Your task to perform on an android device: open app "Google Maps" Image 0: 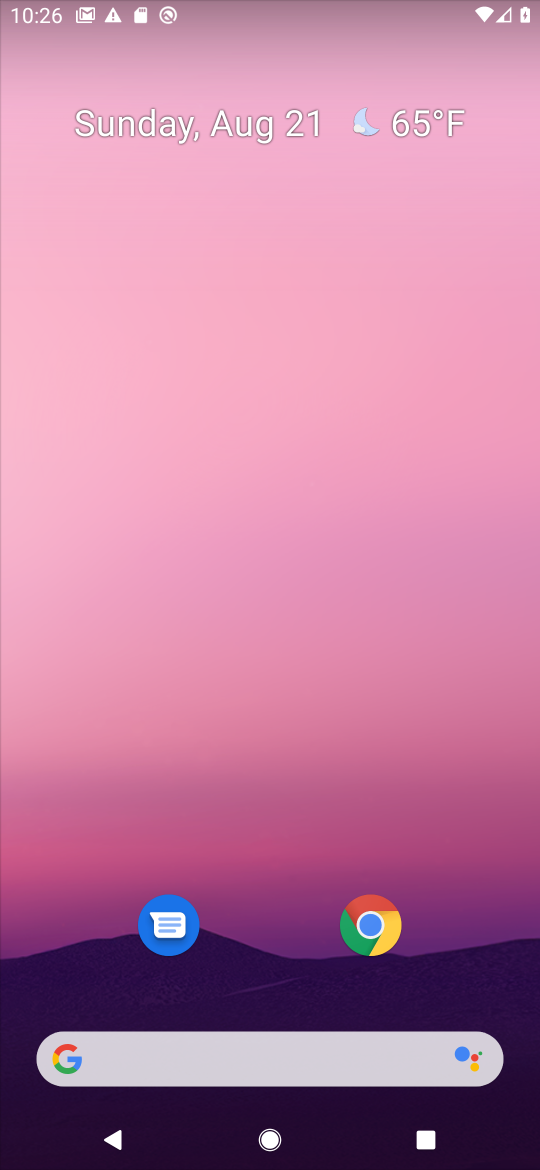
Step 0: drag from (249, 978) to (335, 173)
Your task to perform on an android device: open app "Google Maps" Image 1: 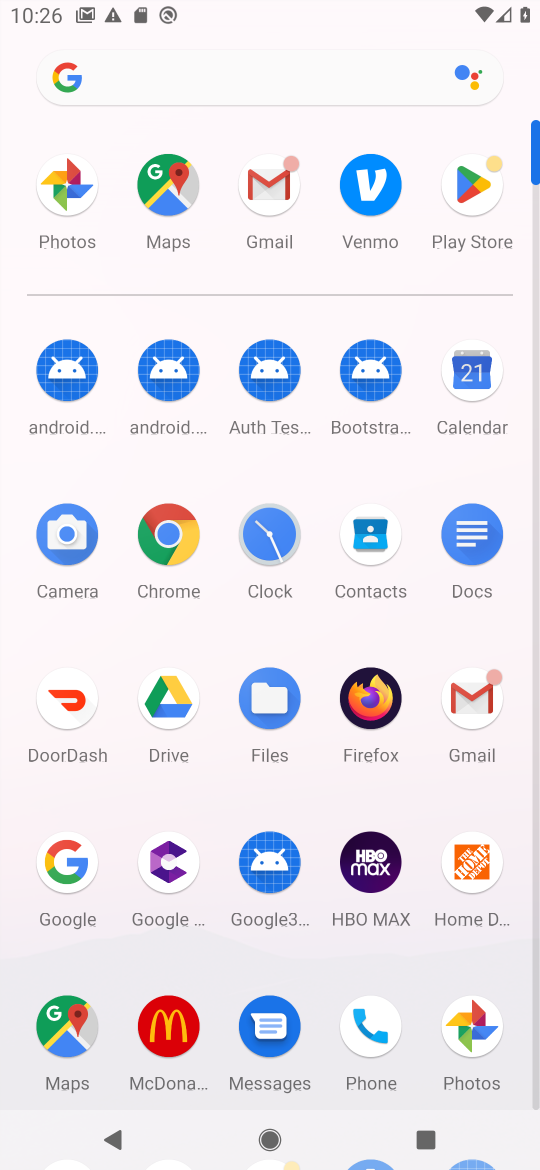
Step 1: click (138, 194)
Your task to perform on an android device: open app "Google Maps" Image 2: 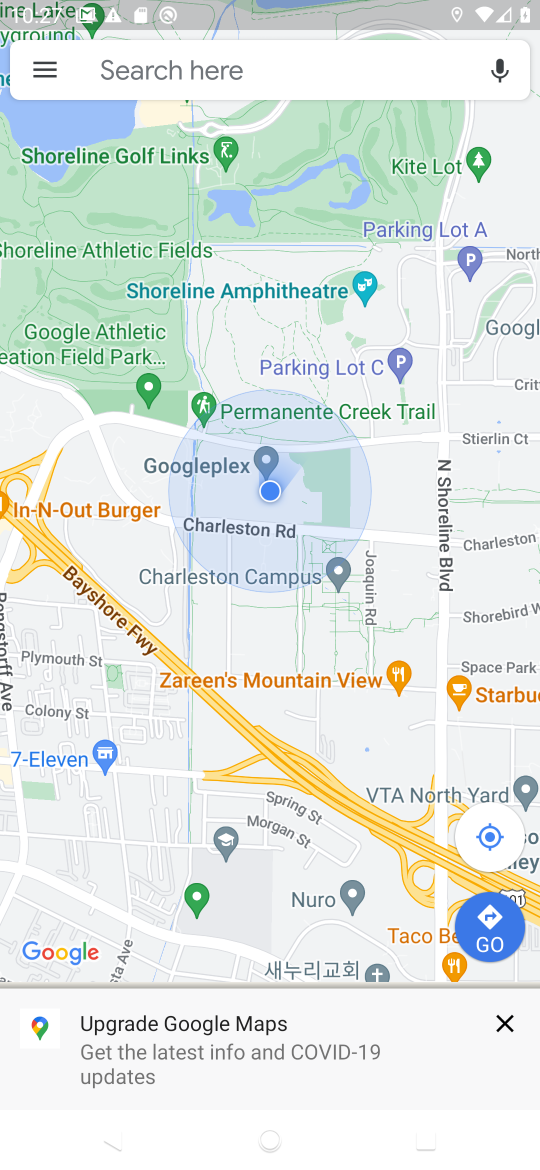
Step 2: task complete